Your task to perform on an android device: search for starred emails in the gmail app Image 0: 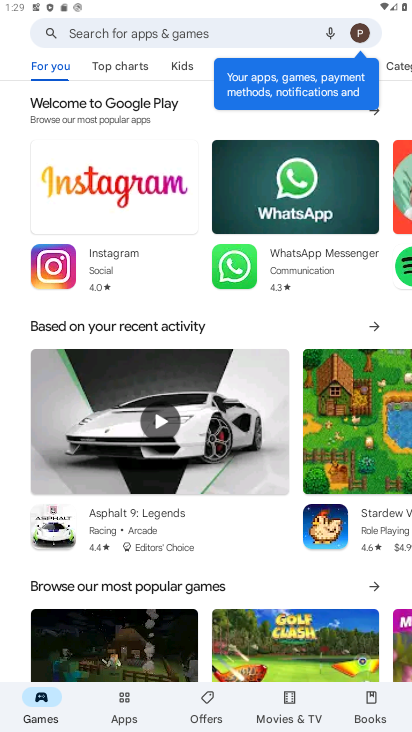
Step 0: press home button
Your task to perform on an android device: search for starred emails in the gmail app Image 1: 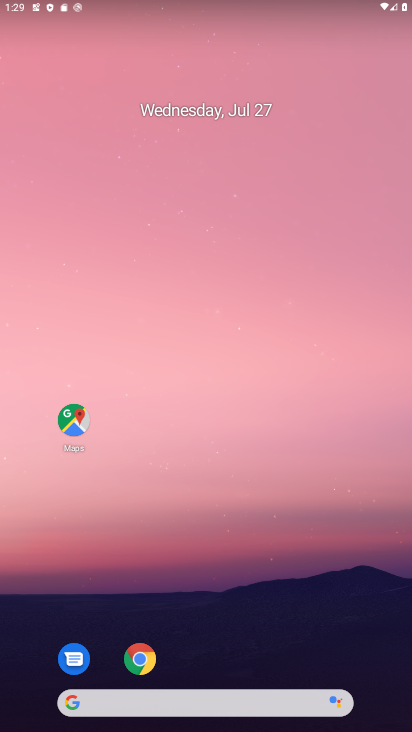
Step 1: drag from (282, 530) to (221, 38)
Your task to perform on an android device: search for starred emails in the gmail app Image 2: 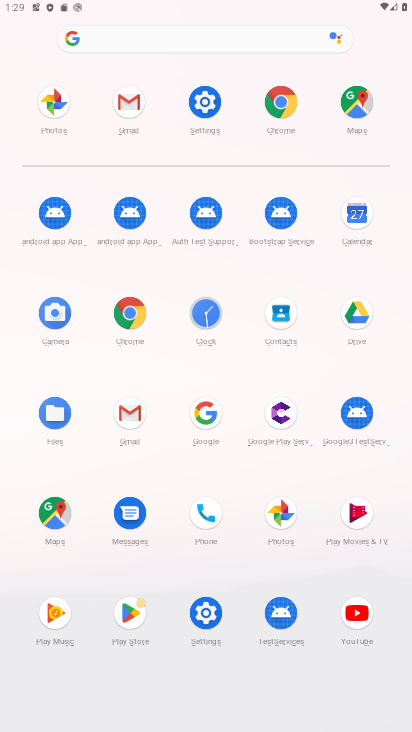
Step 2: click (122, 113)
Your task to perform on an android device: search for starred emails in the gmail app Image 3: 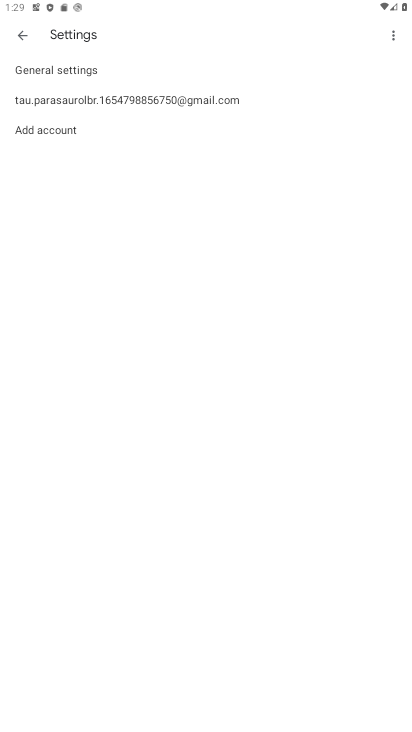
Step 3: click (16, 39)
Your task to perform on an android device: search for starred emails in the gmail app Image 4: 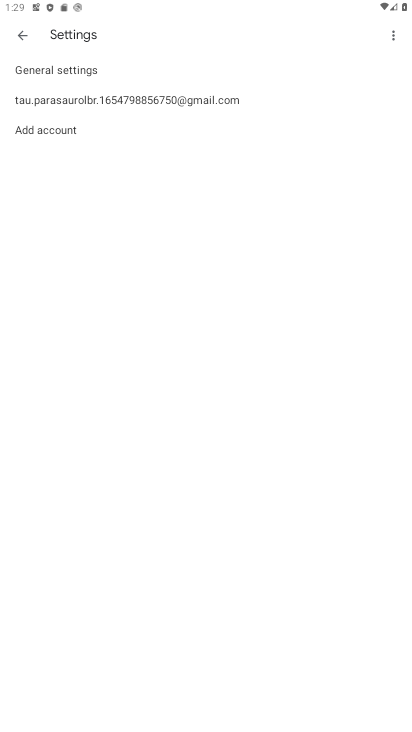
Step 4: click (17, 36)
Your task to perform on an android device: search for starred emails in the gmail app Image 5: 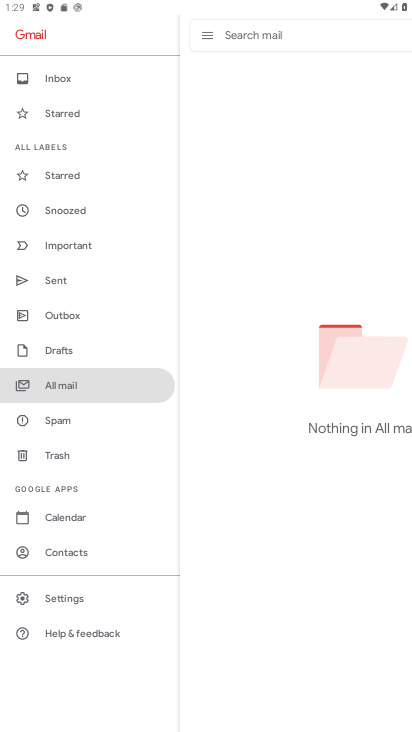
Step 5: click (72, 176)
Your task to perform on an android device: search for starred emails in the gmail app Image 6: 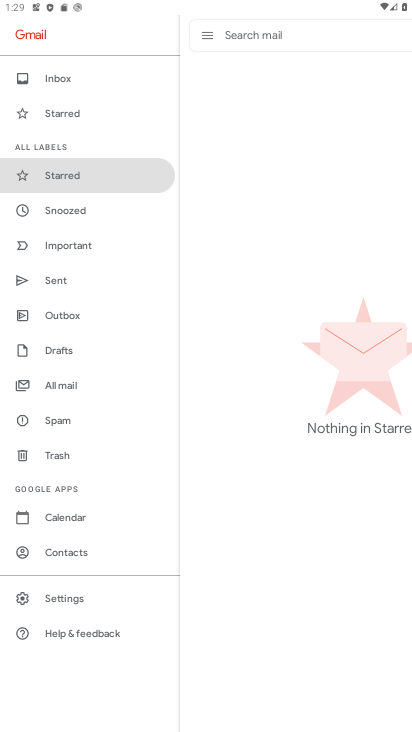
Step 6: task complete